Your task to perform on an android device: Search for vegetarian restaurants on Maps Image 0: 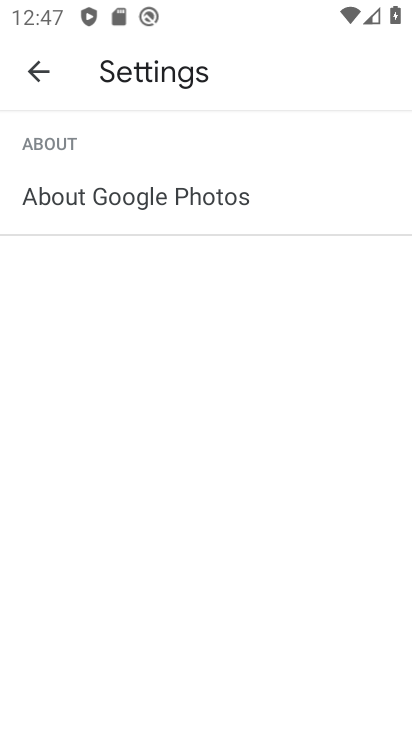
Step 0: task complete